Your task to perform on an android device: Open maps Image 0: 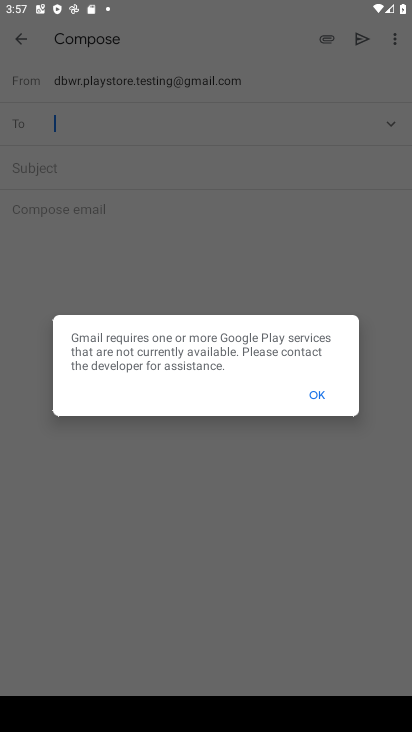
Step 0: press home button
Your task to perform on an android device: Open maps Image 1: 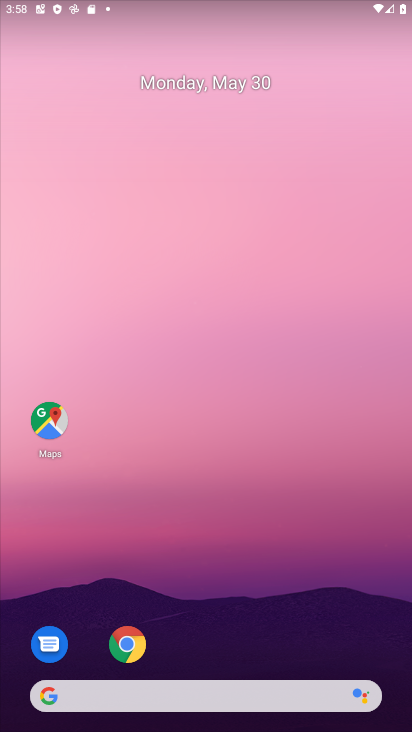
Step 1: task complete